Your task to perform on an android device: change timer sound Image 0: 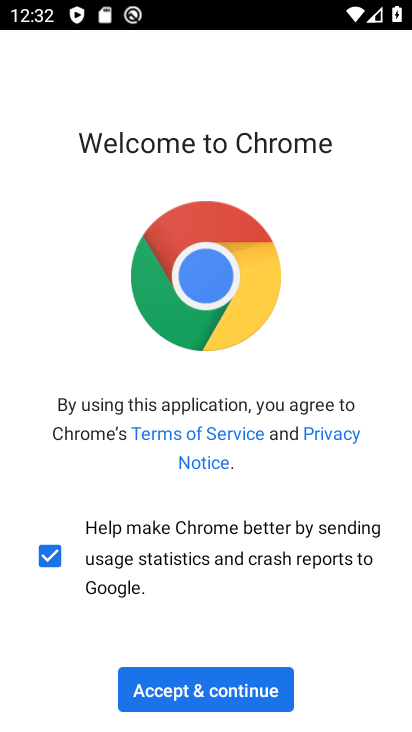
Step 0: press home button
Your task to perform on an android device: change timer sound Image 1: 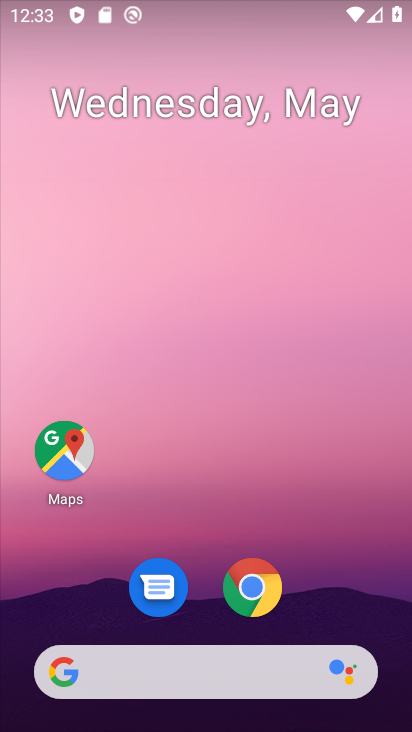
Step 1: drag from (236, 708) to (235, 2)
Your task to perform on an android device: change timer sound Image 2: 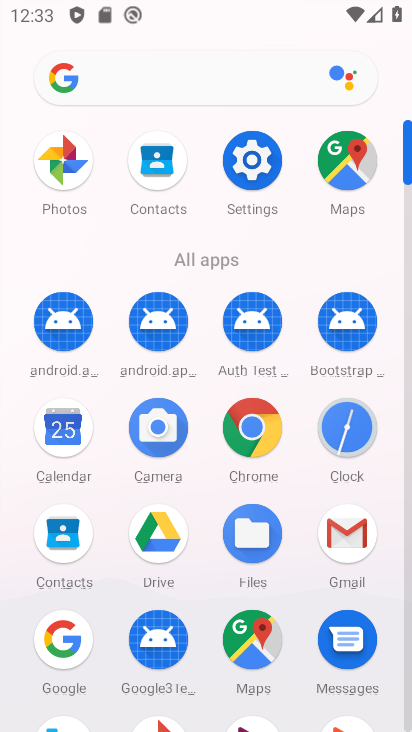
Step 2: click (354, 430)
Your task to perform on an android device: change timer sound Image 3: 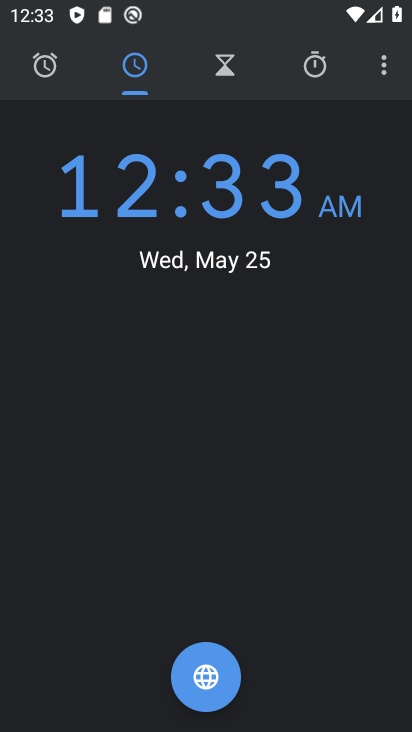
Step 3: click (388, 74)
Your task to perform on an android device: change timer sound Image 4: 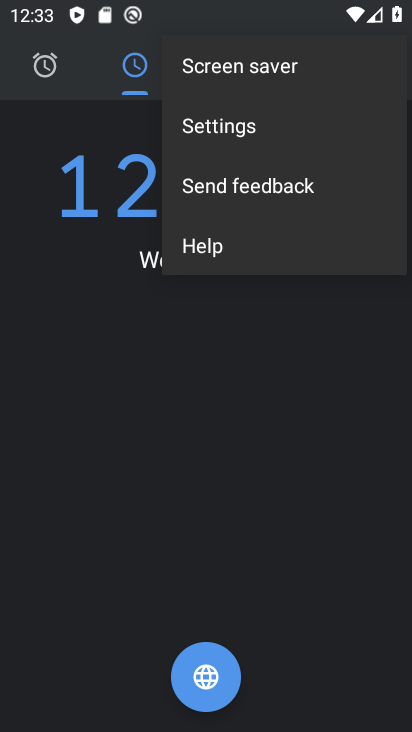
Step 4: click (227, 130)
Your task to perform on an android device: change timer sound Image 5: 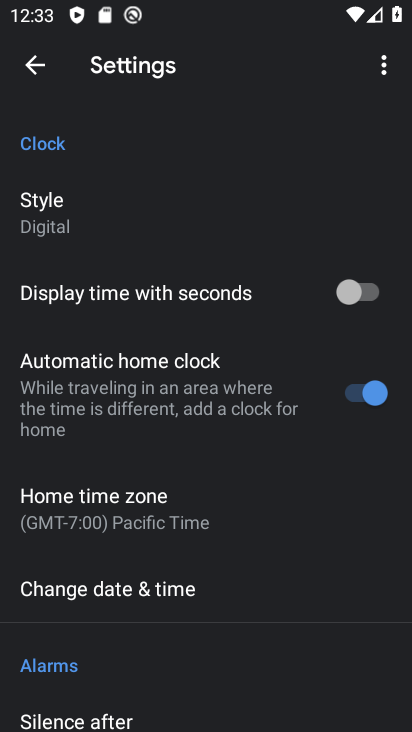
Step 5: drag from (150, 699) to (162, 282)
Your task to perform on an android device: change timer sound Image 6: 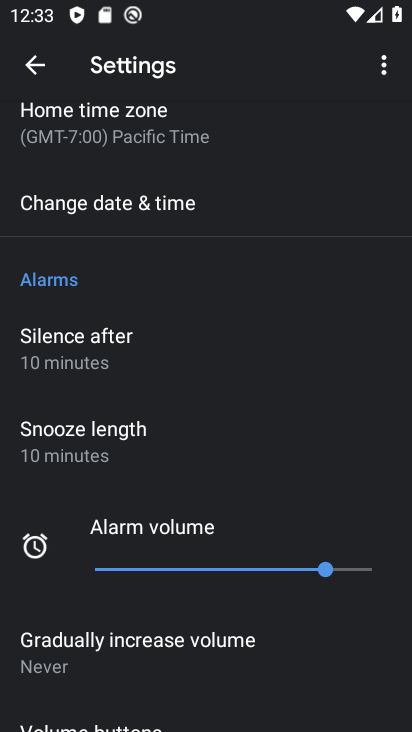
Step 6: drag from (242, 487) to (239, 126)
Your task to perform on an android device: change timer sound Image 7: 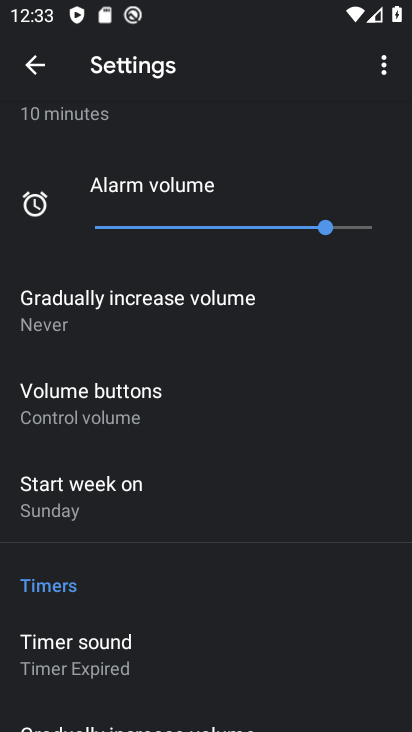
Step 7: click (110, 645)
Your task to perform on an android device: change timer sound Image 8: 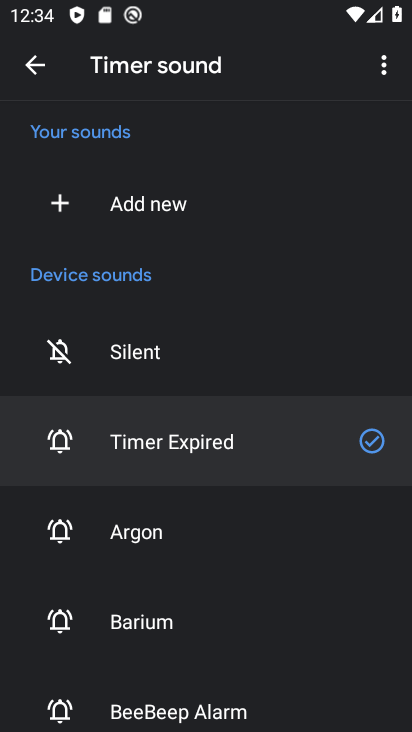
Step 8: click (103, 709)
Your task to perform on an android device: change timer sound Image 9: 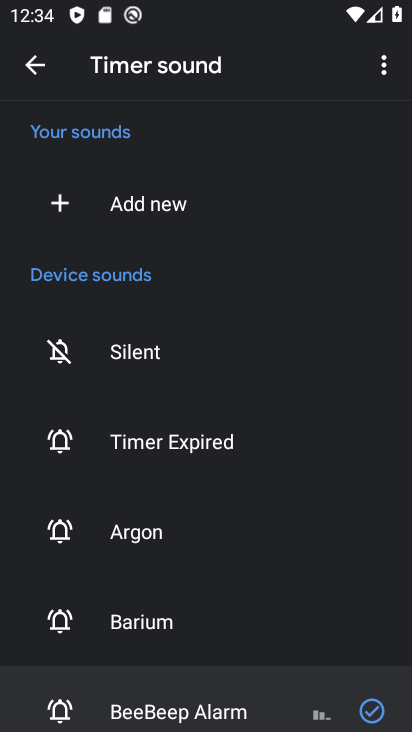
Step 9: task complete